Your task to perform on an android device: check data usage Image 0: 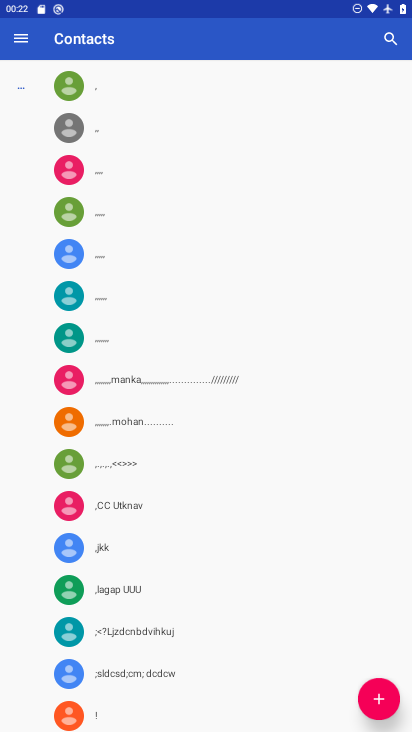
Step 0: press home button
Your task to perform on an android device: check data usage Image 1: 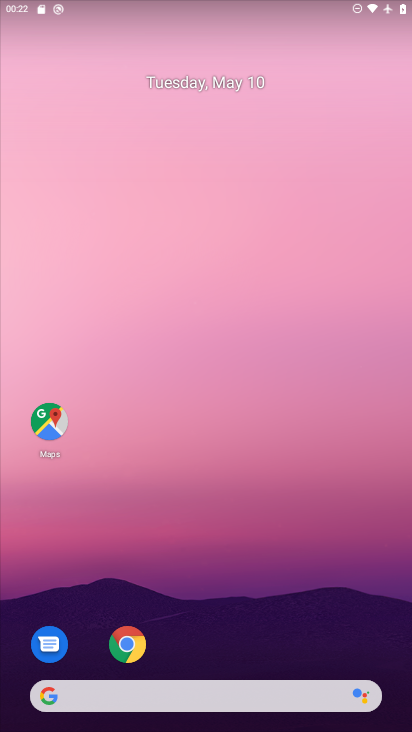
Step 1: drag from (208, 642) to (199, 260)
Your task to perform on an android device: check data usage Image 2: 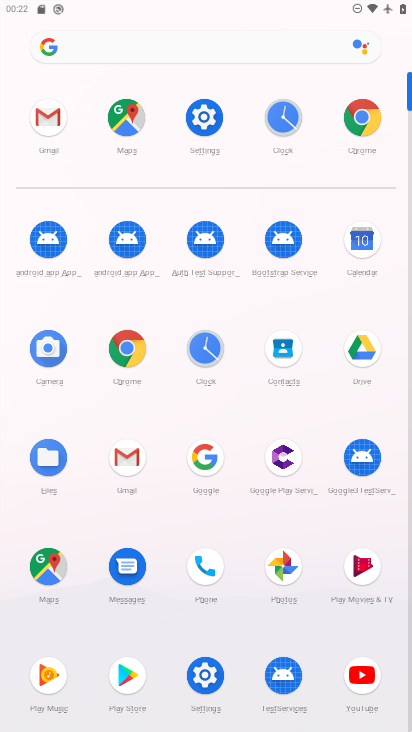
Step 2: click (192, 118)
Your task to perform on an android device: check data usage Image 3: 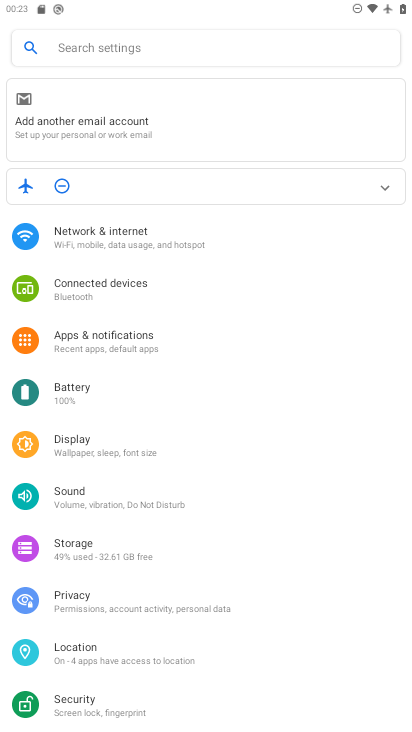
Step 3: click (159, 253)
Your task to perform on an android device: check data usage Image 4: 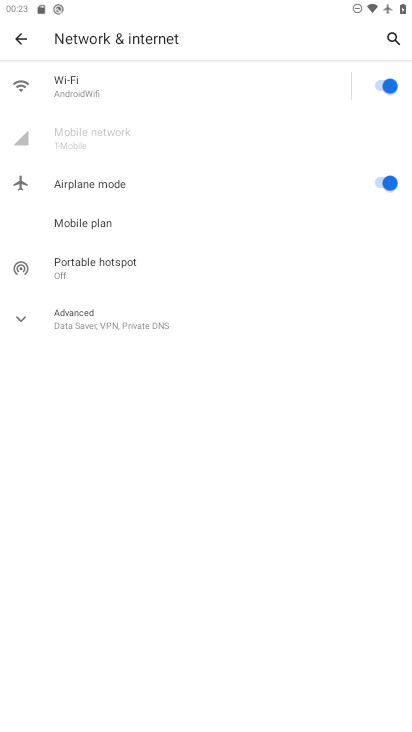
Step 4: click (139, 152)
Your task to perform on an android device: check data usage Image 5: 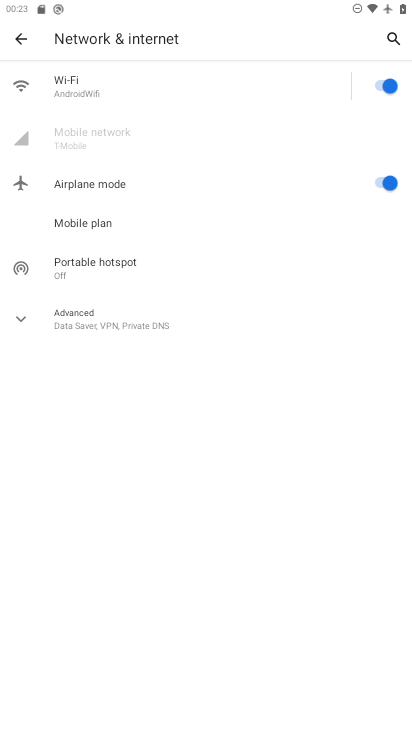
Step 5: task complete